Your task to perform on an android device: open wifi settings Image 0: 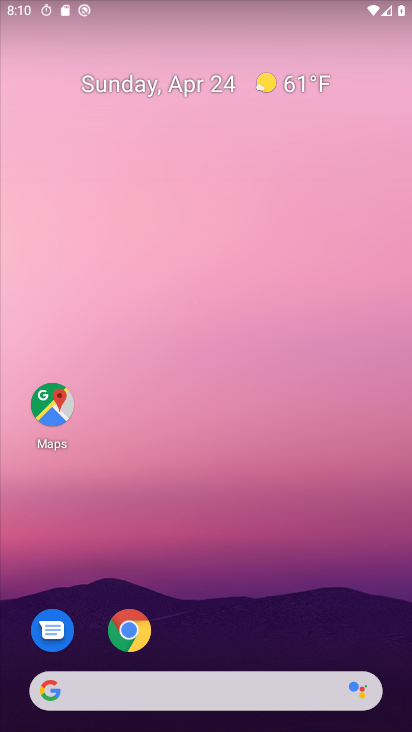
Step 0: drag from (361, 596) to (347, 72)
Your task to perform on an android device: open wifi settings Image 1: 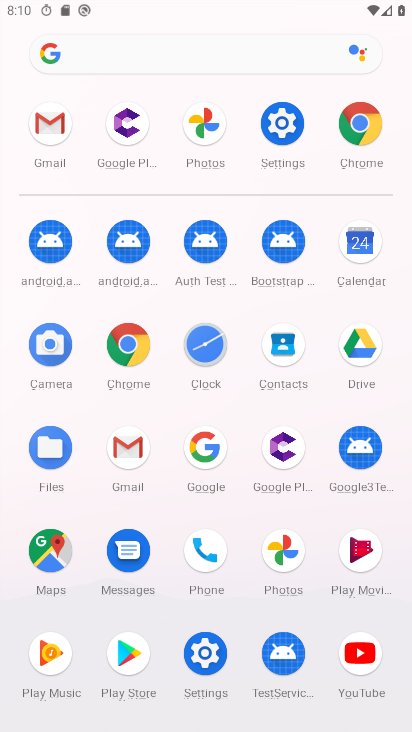
Step 1: click (285, 126)
Your task to perform on an android device: open wifi settings Image 2: 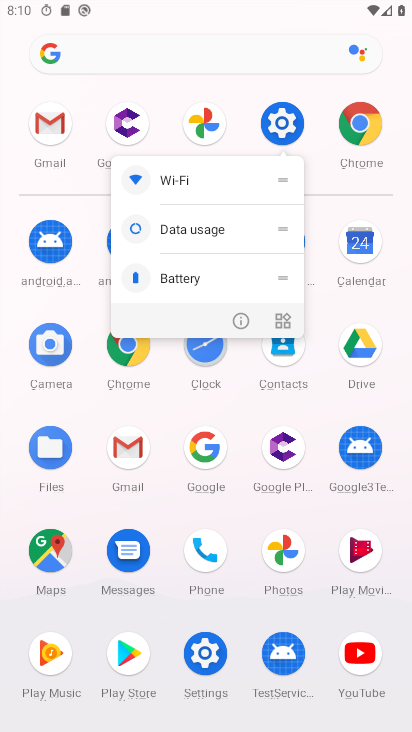
Step 2: click (279, 122)
Your task to perform on an android device: open wifi settings Image 3: 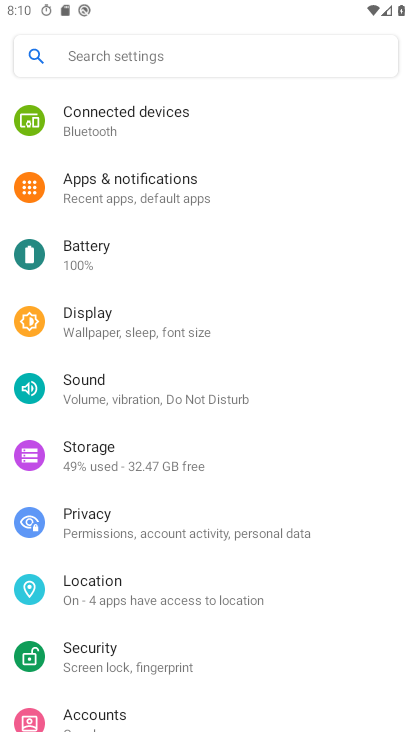
Step 3: drag from (346, 632) to (328, 343)
Your task to perform on an android device: open wifi settings Image 4: 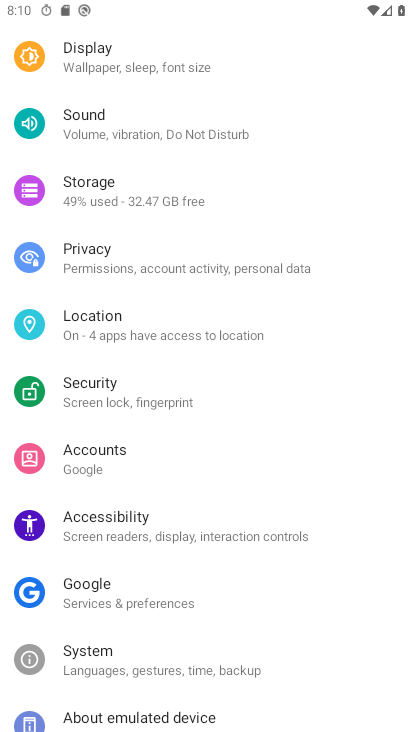
Step 4: drag from (363, 616) to (384, 364)
Your task to perform on an android device: open wifi settings Image 5: 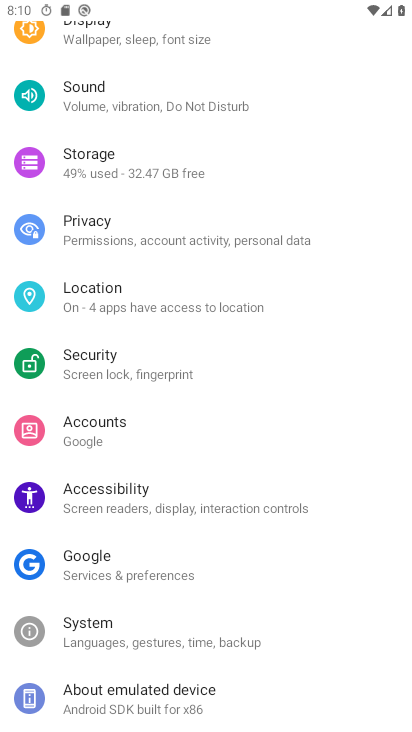
Step 5: drag from (350, 311) to (325, 506)
Your task to perform on an android device: open wifi settings Image 6: 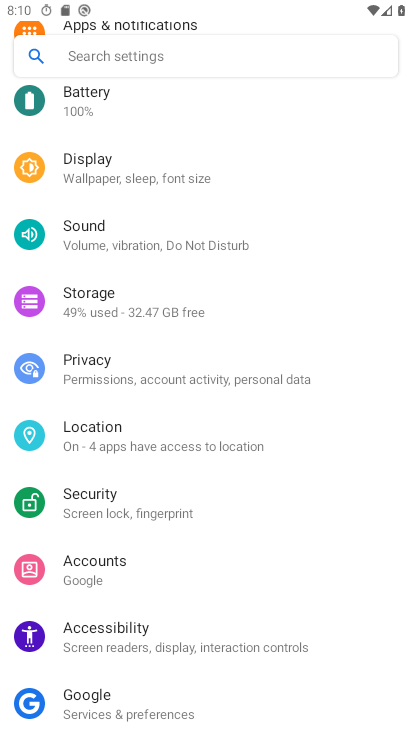
Step 6: drag from (352, 308) to (351, 470)
Your task to perform on an android device: open wifi settings Image 7: 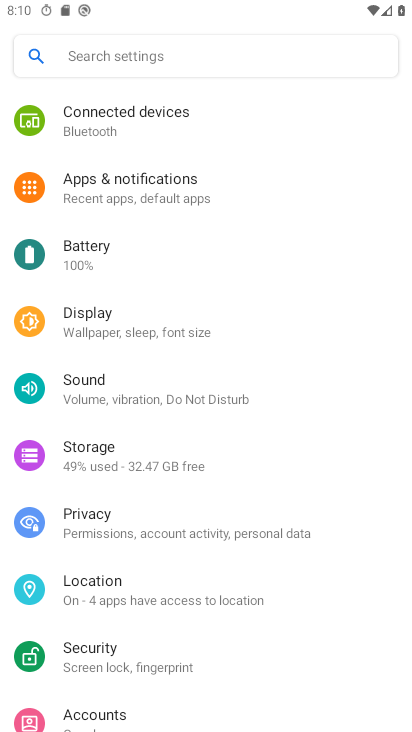
Step 7: drag from (349, 304) to (346, 461)
Your task to perform on an android device: open wifi settings Image 8: 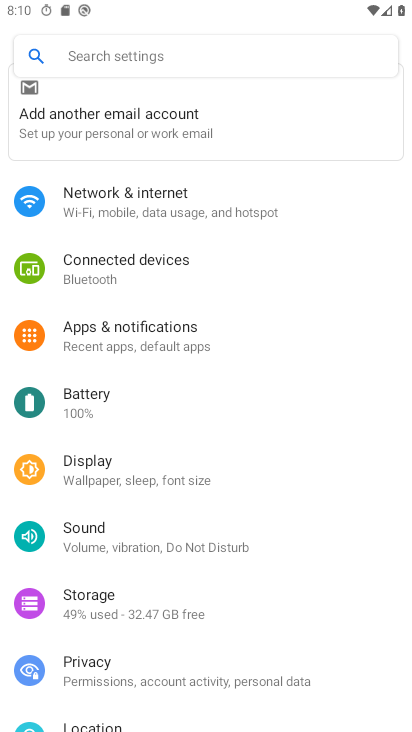
Step 8: drag from (332, 283) to (336, 445)
Your task to perform on an android device: open wifi settings Image 9: 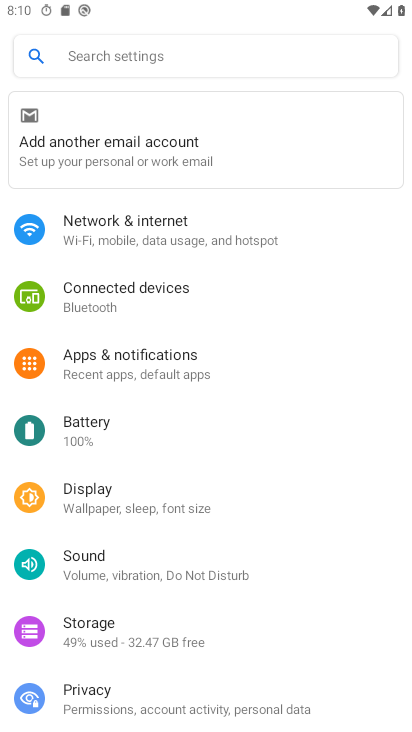
Step 9: drag from (342, 300) to (334, 443)
Your task to perform on an android device: open wifi settings Image 10: 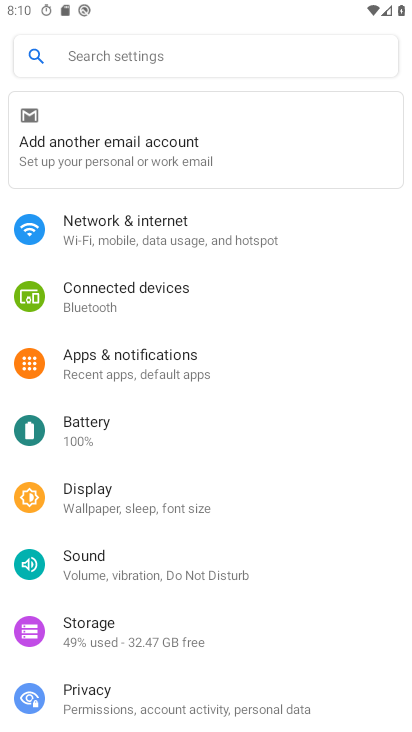
Step 10: click (251, 223)
Your task to perform on an android device: open wifi settings Image 11: 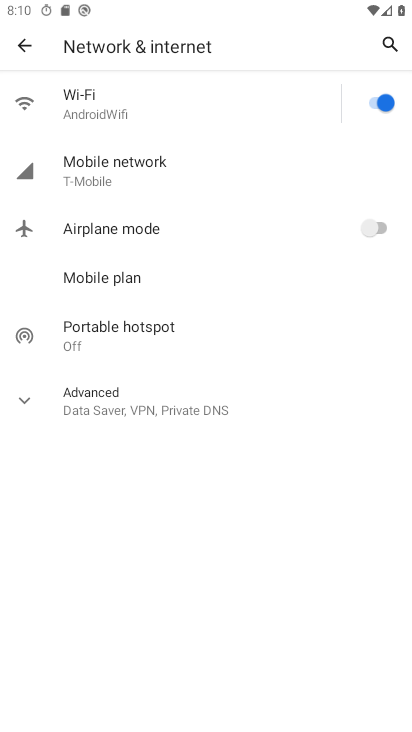
Step 11: click (92, 105)
Your task to perform on an android device: open wifi settings Image 12: 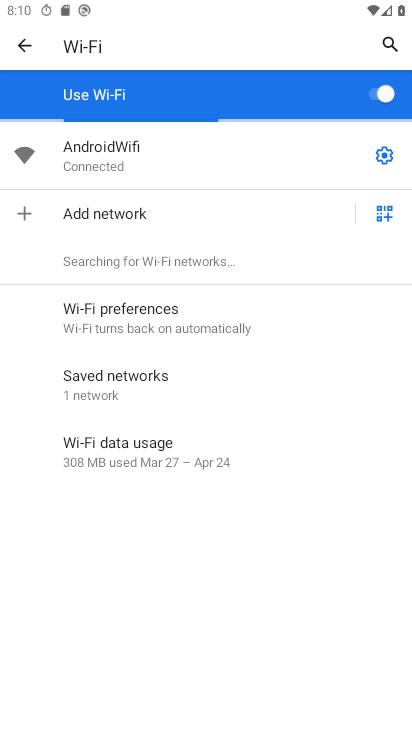
Step 12: task complete